Your task to perform on an android device: turn on airplane mode Image 0: 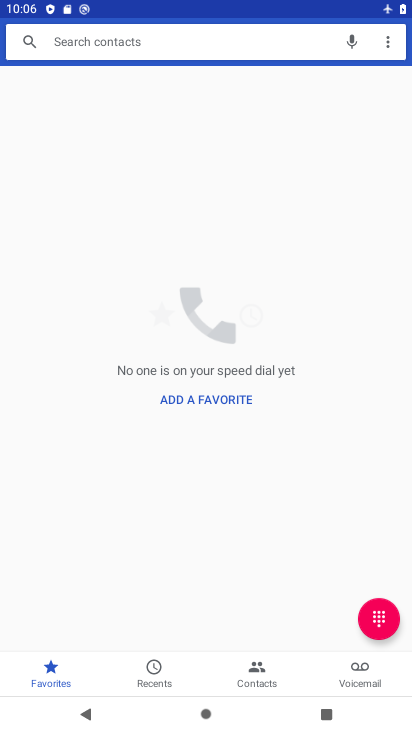
Step 0: press back button
Your task to perform on an android device: turn on airplane mode Image 1: 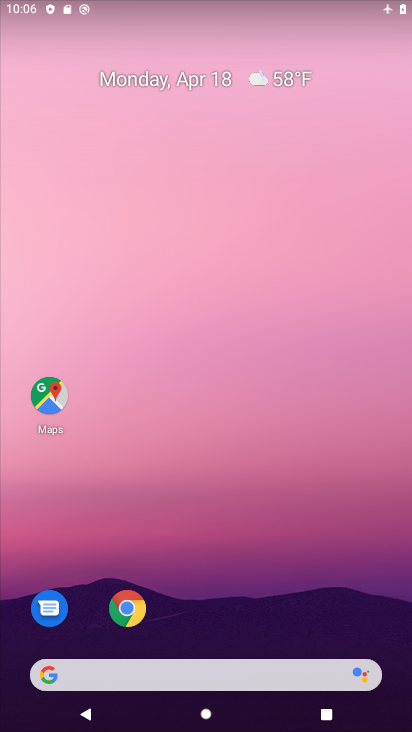
Step 1: drag from (292, 635) to (219, 46)
Your task to perform on an android device: turn on airplane mode Image 2: 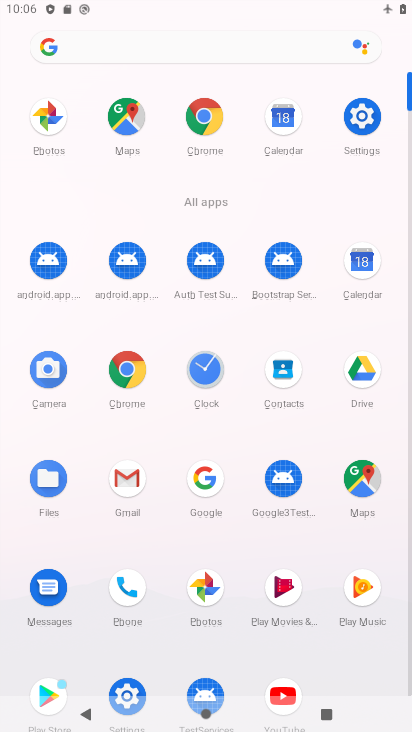
Step 2: click (365, 129)
Your task to perform on an android device: turn on airplane mode Image 3: 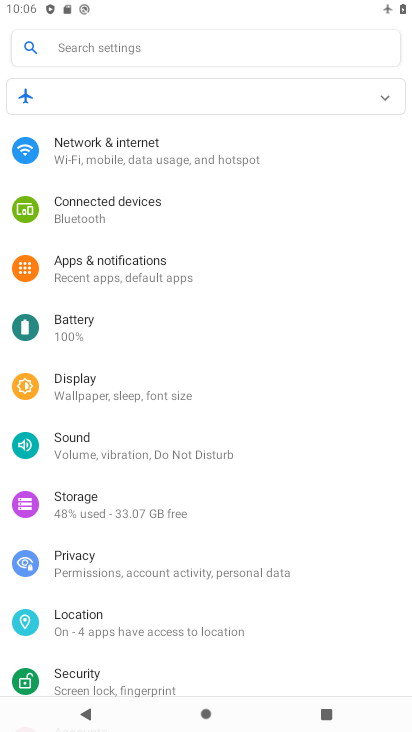
Step 3: click (342, 171)
Your task to perform on an android device: turn on airplane mode Image 4: 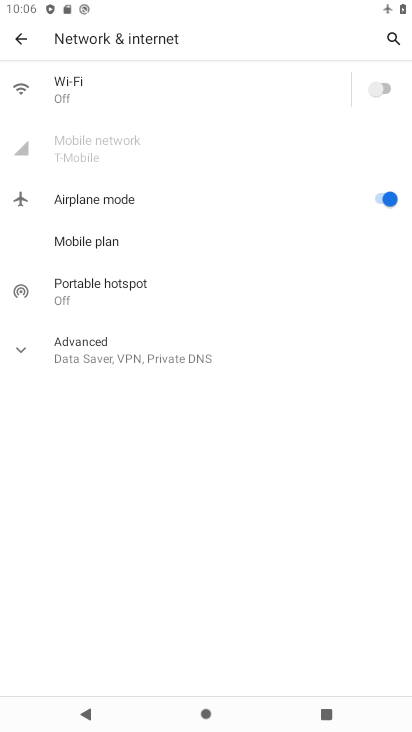
Step 4: task complete